Your task to perform on an android device: Show me productivity apps on the Play Store Image 0: 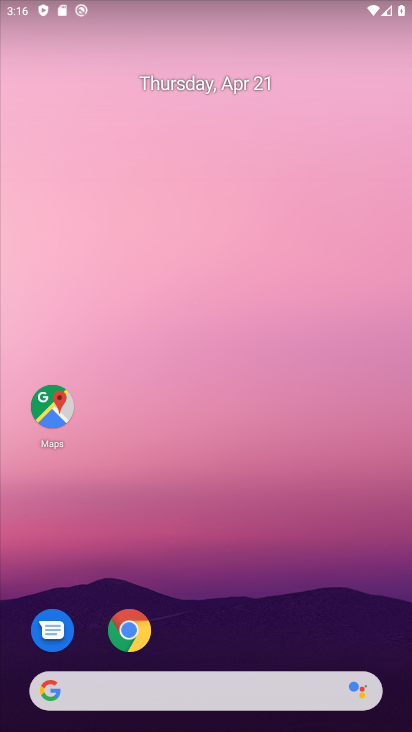
Step 0: drag from (358, 639) to (328, 14)
Your task to perform on an android device: Show me productivity apps on the Play Store Image 1: 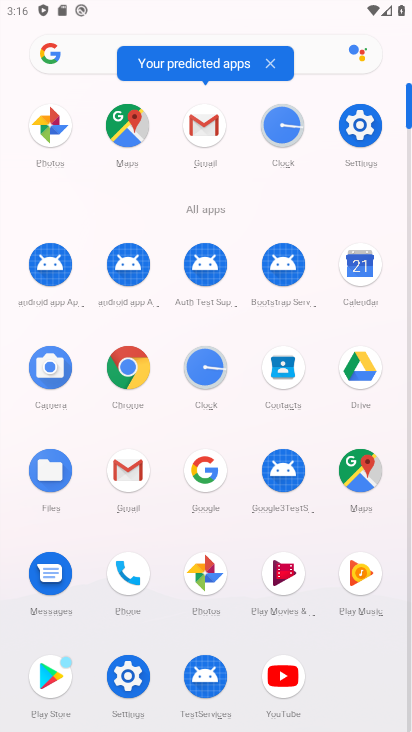
Step 1: click (52, 680)
Your task to perform on an android device: Show me productivity apps on the Play Store Image 2: 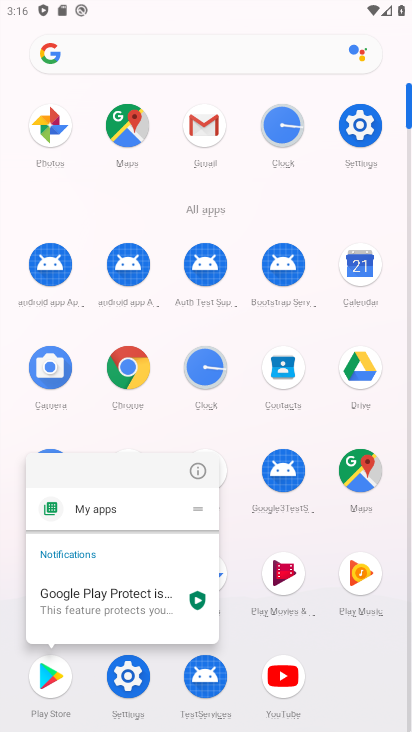
Step 2: click (50, 679)
Your task to perform on an android device: Show me productivity apps on the Play Store Image 3: 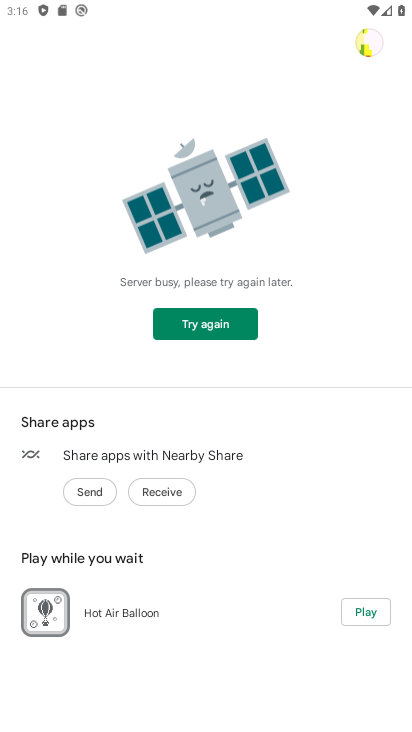
Step 3: task complete